Your task to perform on an android device: toggle improve location accuracy Image 0: 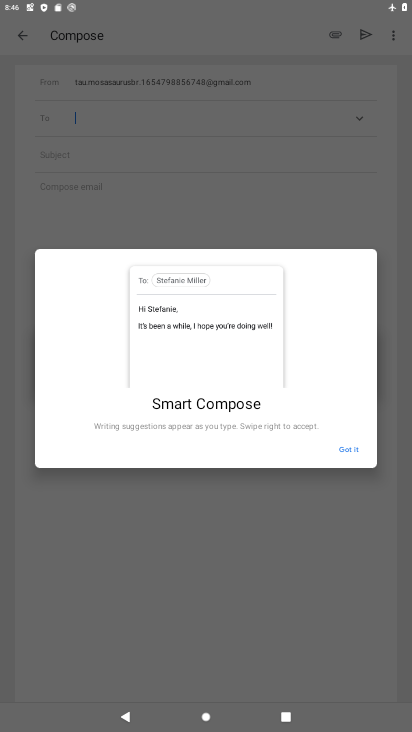
Step 0: press home button
Your task to perform on an android device: toggle improve location accuracy Image 1: 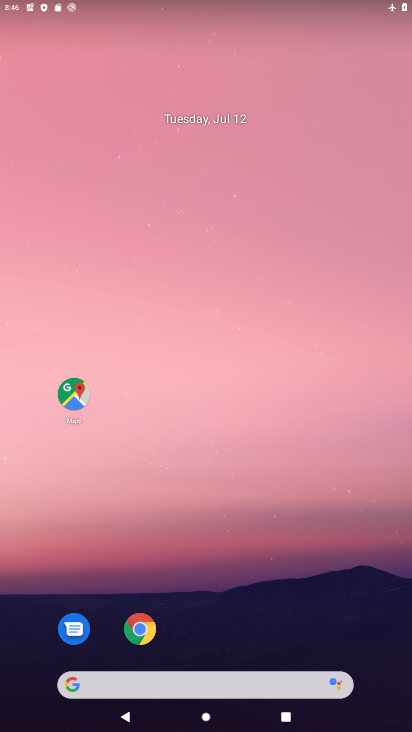
Step 1: drag from (276, 661) to (201, 143)
Your task to perform on an android device: toggle improve location accuracy Image 2: 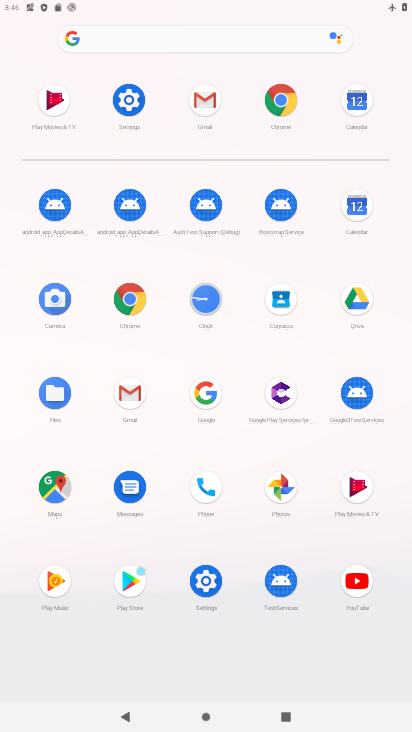
Step 2: click (126, 99)
Your task to perform on an android device: toggle improve location accuracy Image 3: 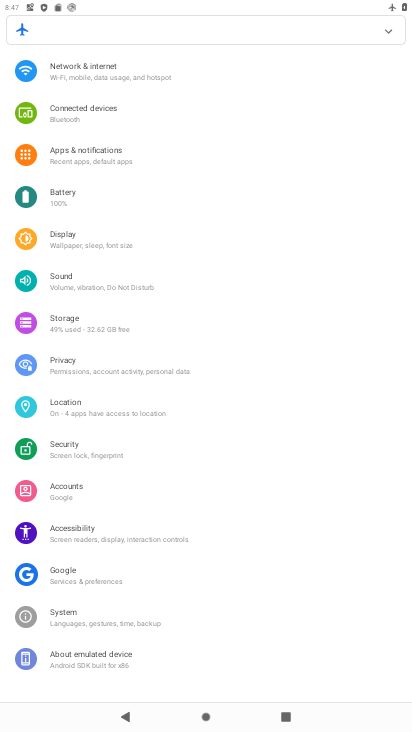
Step 3: click (105, 399)
Your task to perform on an android device: toggle improve location accuracy Image 4: 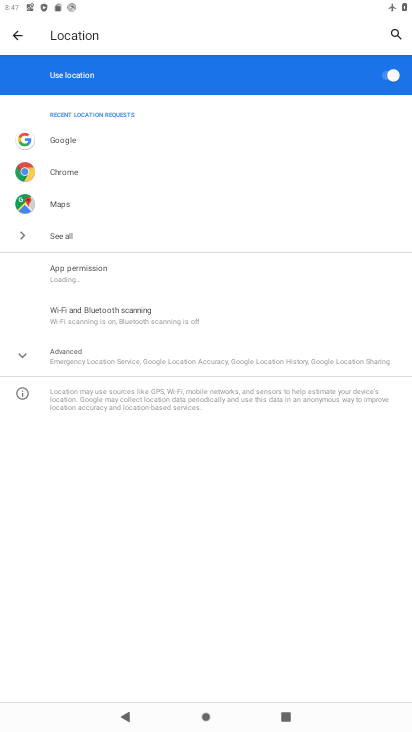
Step 4: click (145, 355)
Your task to perform on an android device: toggle improve location accuracy Image 5: 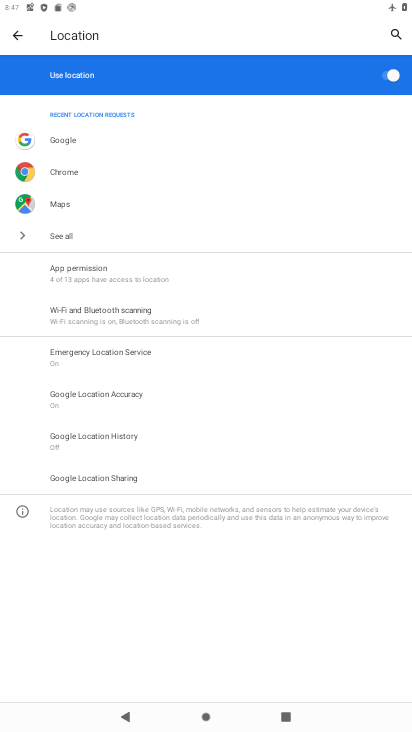
Step 5: click (127, 404)
Your task to perform on an android device: toggle improve location accuracy Image 6: 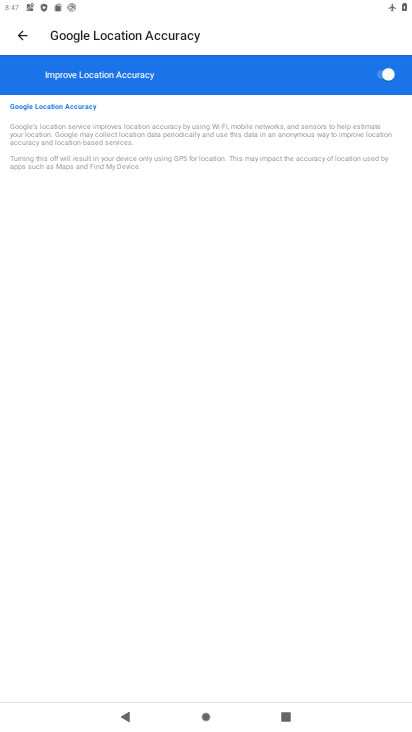
Step 6: click (375, 75)
Your task to perform on an android device: toggle improve location accuracy Image 7: 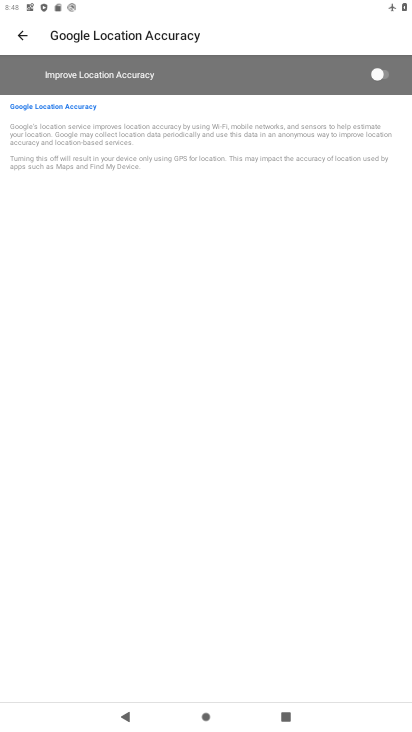
Step 7: task complete